Your task to perform on an android device: turn off data saver in the chrome app Image 0: 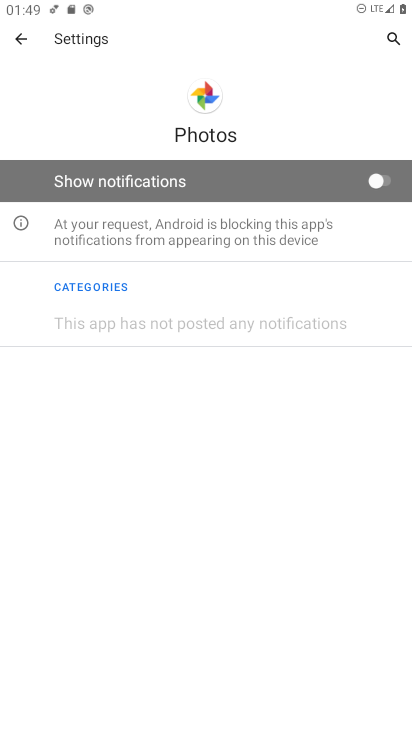
Step 0: press home button
Your task to perform on an android device: turn off data saver in the chrome app Image 1: 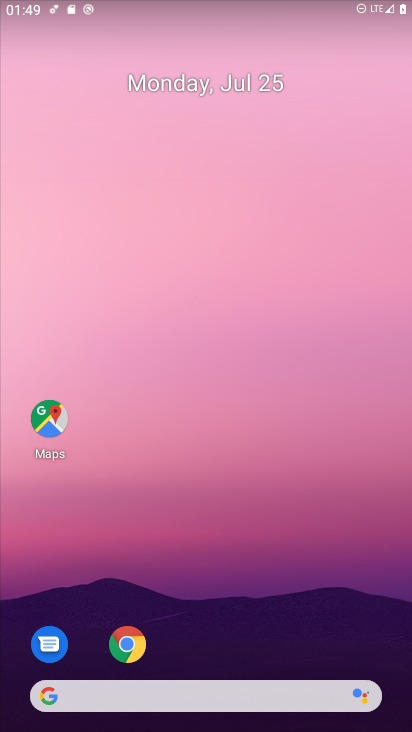
Step 1: drag from (214, 709) to (208, 112)
Your task to perform on an android device: turn off data saver in the chrome app Image 2: 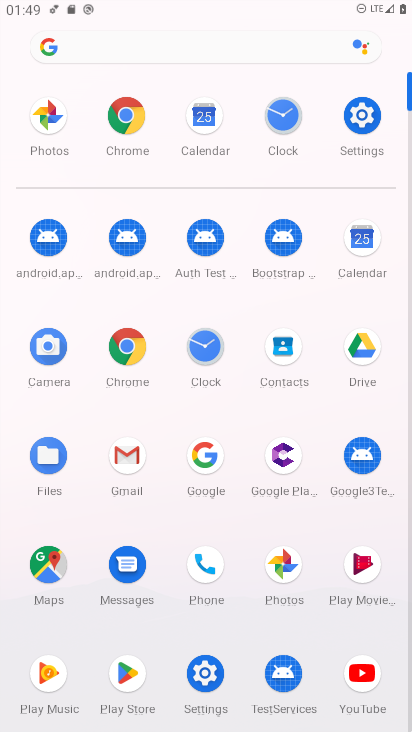
Step 2: click (129, 343)
Your task to perform on an android device: turn off data saver in the chrome app Image 3: 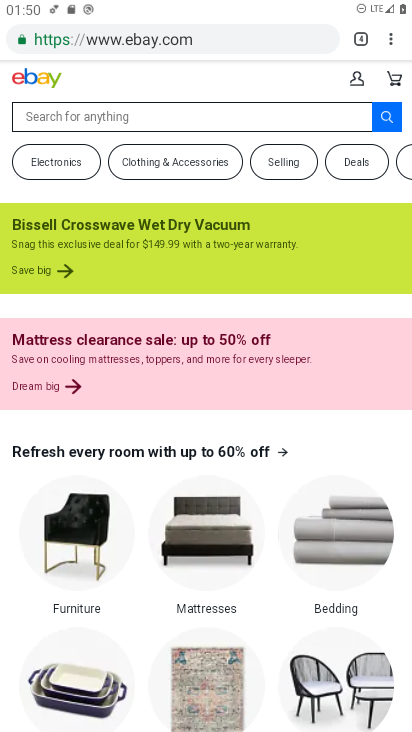
Step 3: click (391, 40)
Your task to perform on an android device: turn off data saver in the chrome app Image 4: 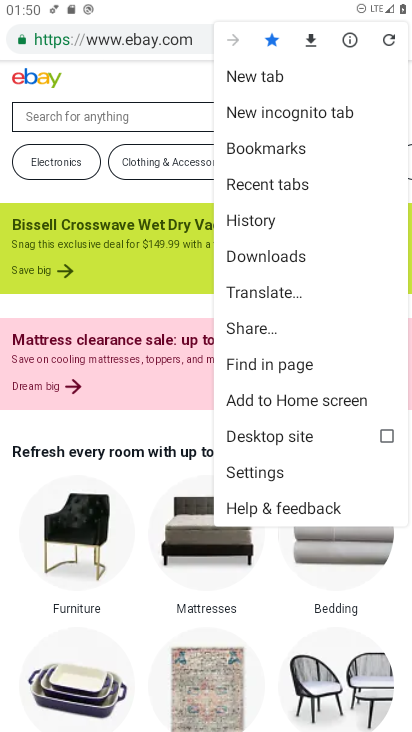
Step 4: click (253, 466)
Your task to perform on an android device: turn off data saver in the chrome app Image 5: 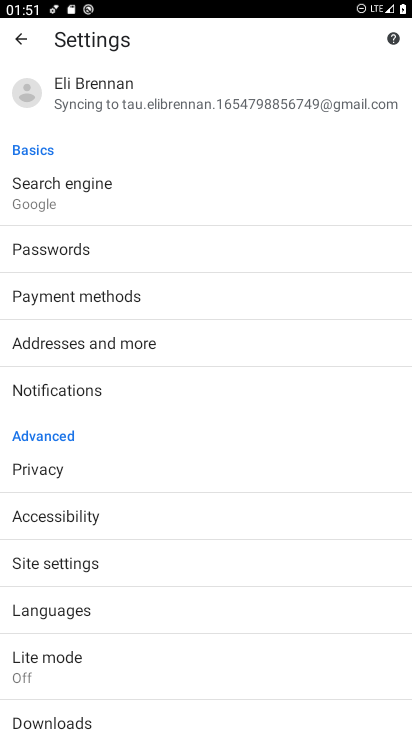
Step 5: click (56, 667)
Your task to perform on an android device: turn off data saver in the chrome app Image 6: 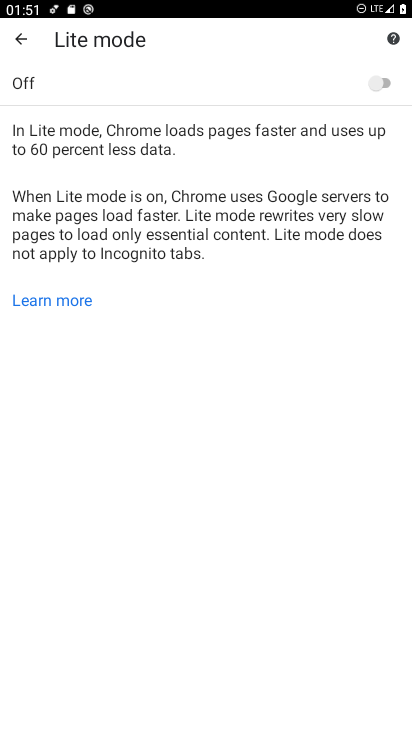
Step 6: task complete